Your task to perform on an android device: make emails show in primary in the gmail app Image 0: 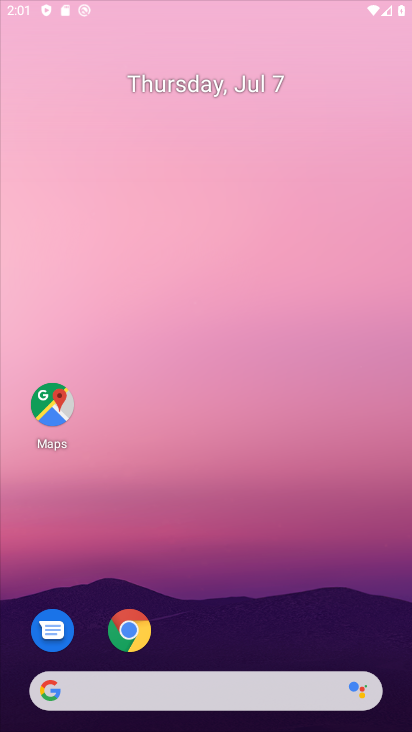
Step 0: click (189, 626)
Your task to perform on an android device: make emails show in primary in the gmail app Image 1: 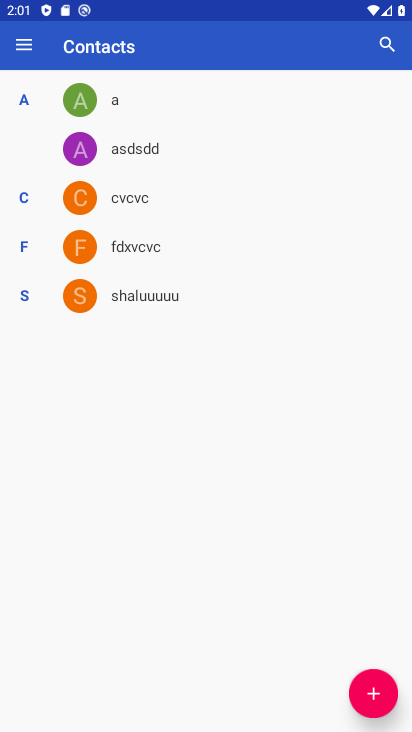
Step 1: press home button
Your task to perform on an android device: make emails show in primary in the gmail app Image 2: 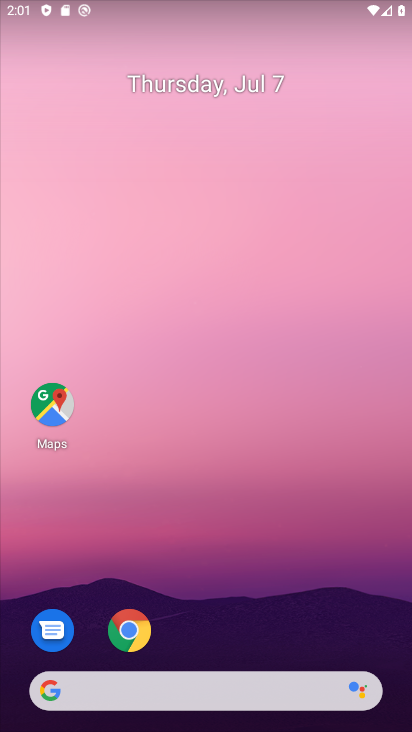
Step 2: drag from (192, 617) to (207, 304)
Your task to perform on an android device: make emails show in primary in the gmail app Image 3: 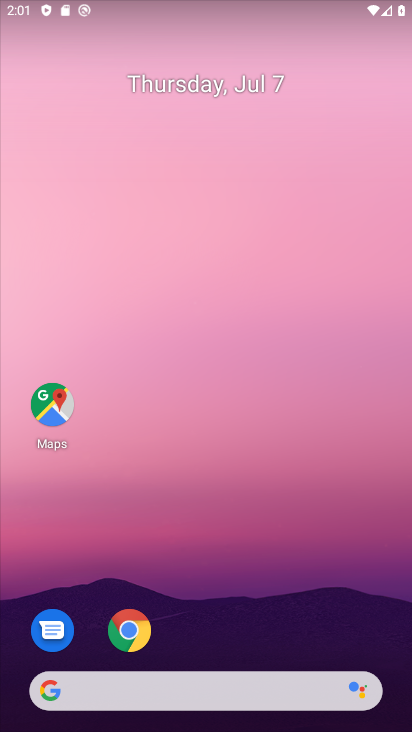
Step 3: drag from (195, 673) to (210, 310)
Your task to perform on an android device: make emails show in primary in the gmail app Image 4: 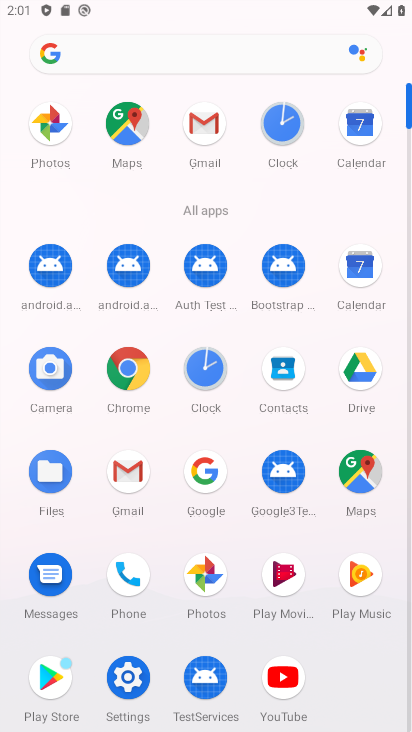
Step 4: click (187, 134)
Your task to perform on an android device: make emails show in primary in the gmail app Image 5: 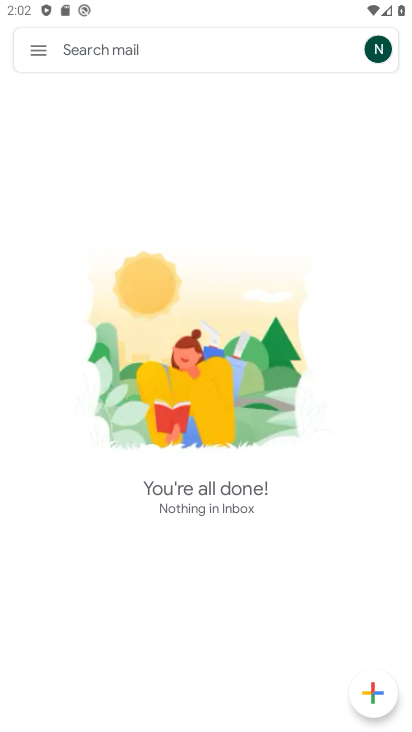
Step 5: click (38, 48)
Your task to perform on an android device: make emails show in primary in the gmail app Image 6: 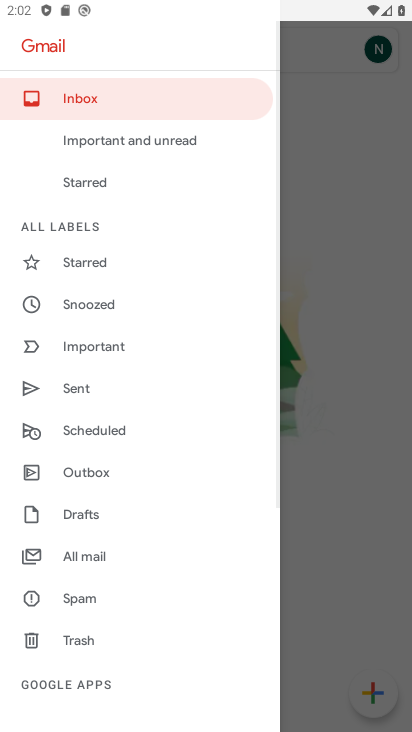
Step 6: drag from (87, 660) to (100, 271)
Your task to perform on an android device: make emails show in primary in the gmail app Image 7: 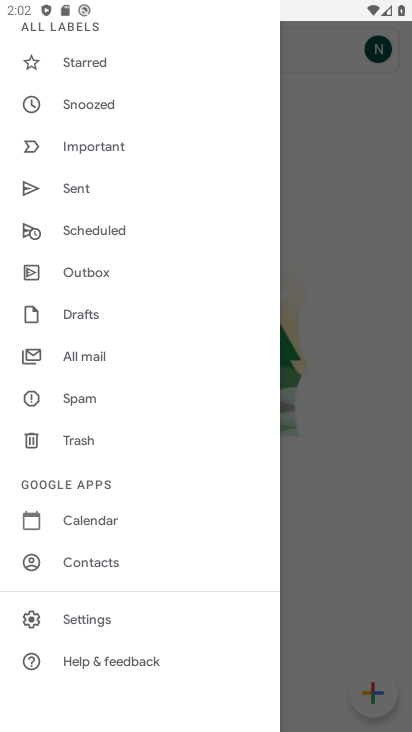
Step 7: click (90, 620)
Your task to perform on an android device: make emails show in primary in the gmail app Image 8: 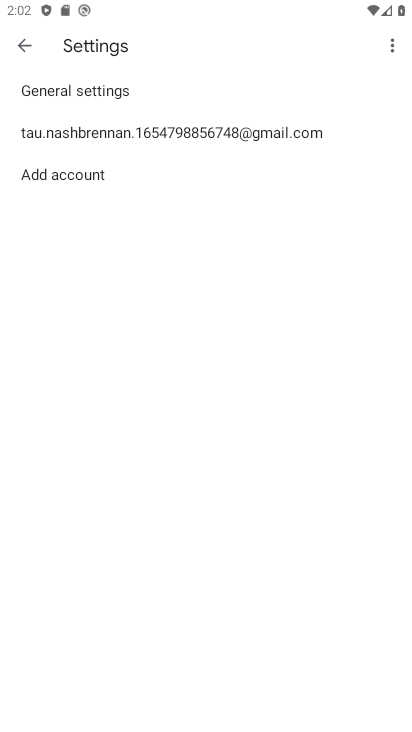
Step 8: click (71, 134)
Your task to perform on an android device: make emails show in primary in the gmail app Image 9: 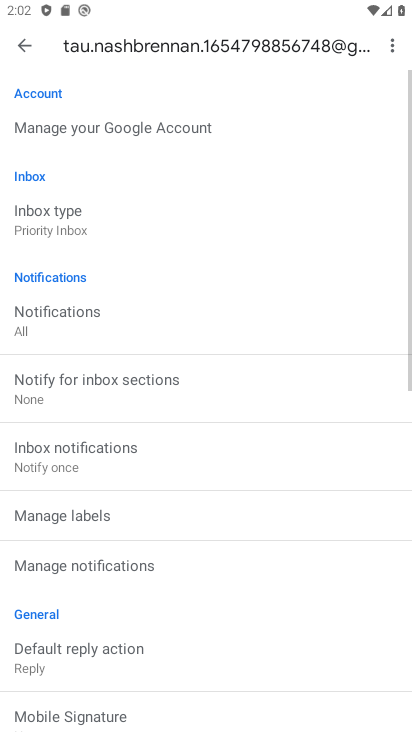
Step 9: click (51, 224)
Your task to perform on an android device: make emails show in primary in the gmail app Image 10: 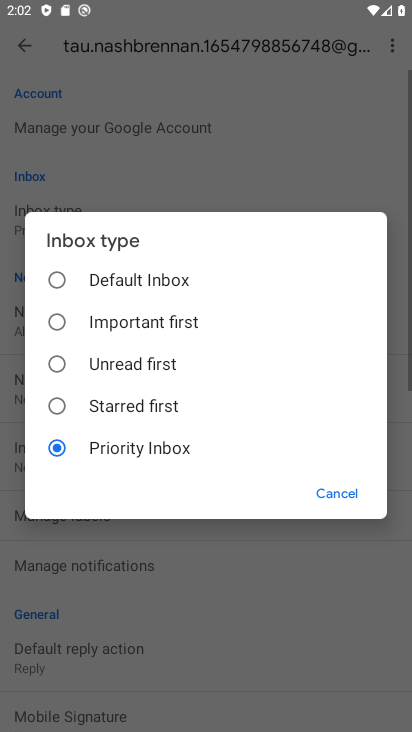
Step 10: click (99, 294)
Your task to perform on an android device: make emails show in primary in the gmail app Image 11: 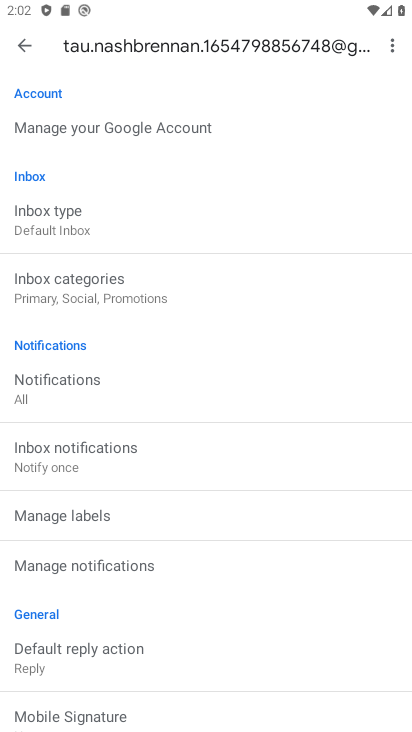
Step 11: click (78, 290)
Your task to perform on an android device: make emails show in primary in the gmail app Image 12: 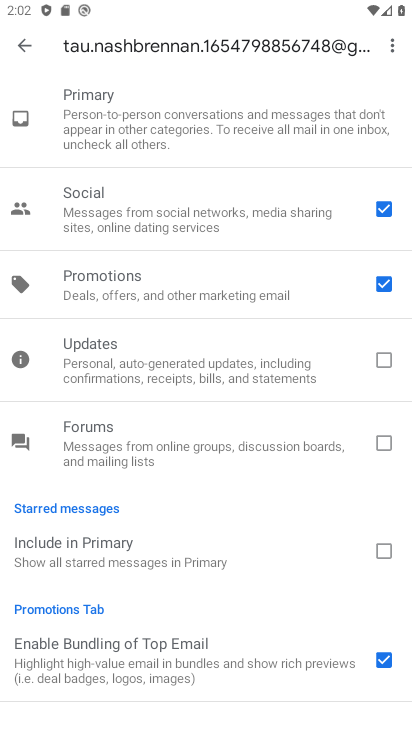
Step 12: click (388, 282)
Your task to perform on an android device: make emails show in primary in the gmail app Image 13: 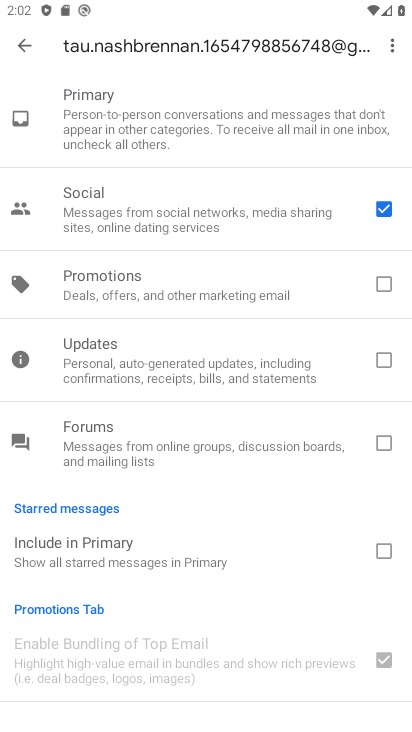
Step 13: click (383, 203)
Your task to perform on an android device: make emails show in primary in the gmail app Image 14: 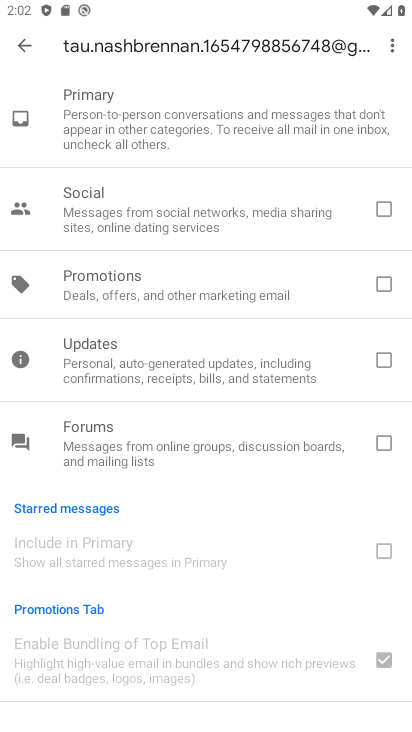
Step 14: click (25, 46)
Your task to perform on an android device: make emails show in primary in the gmail app Image 15: 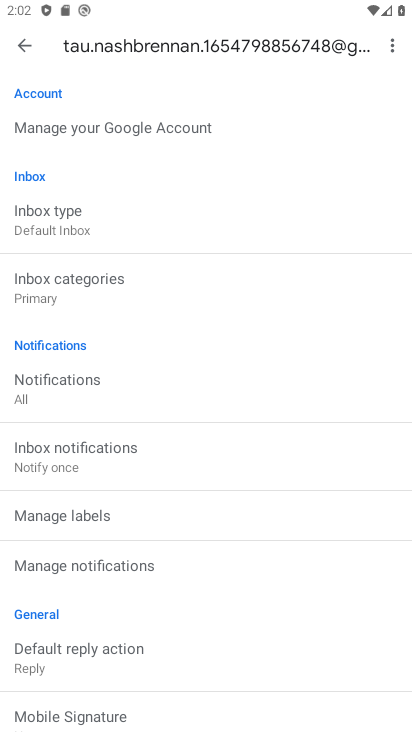
Step 15: task complete